Your task to perform on an android device: Open ESPN.com Image 0: 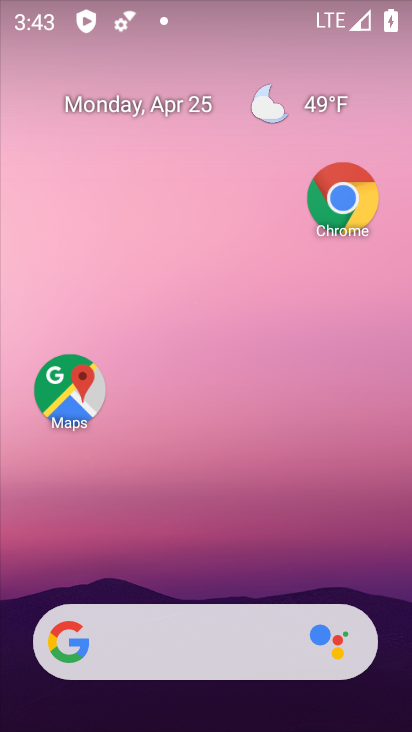
Step 0: press home button
Your task to perform on an android device: Open ESPN.com Image 1: 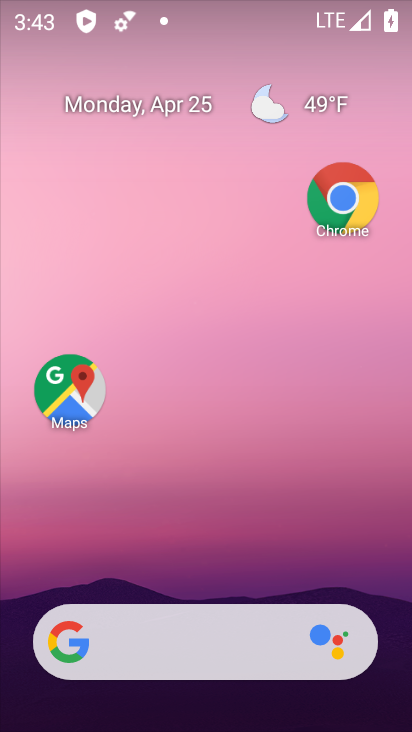
Step 1: drag from (147, 648) to (338, 152)
Your task to perform on an android device: Open ESPN.com Image 2: 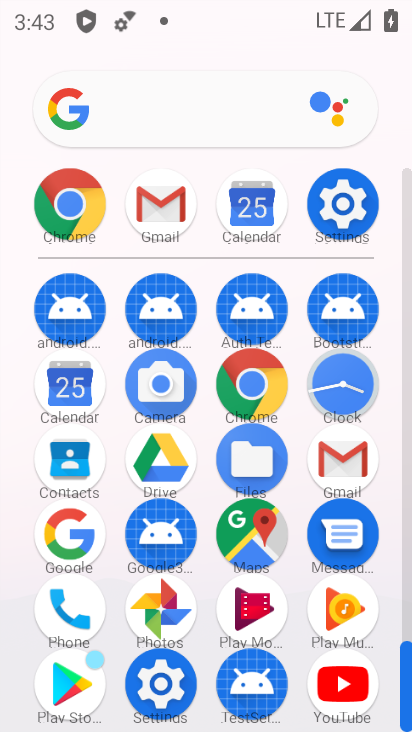
Step 2: click (63, 207)
Your task to perform on an android device: Open ESPN.com Image 3: 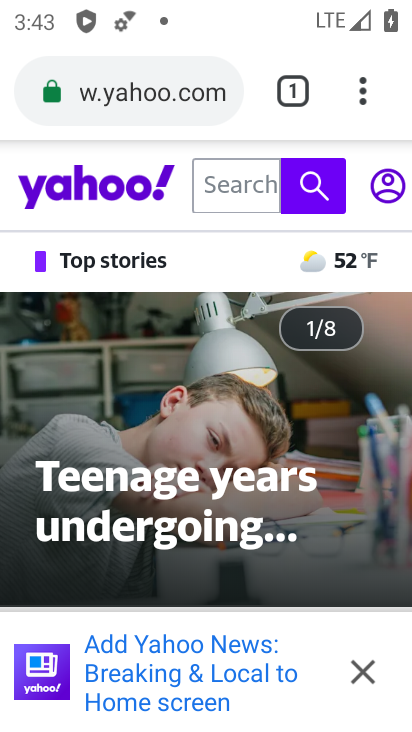
Step 3: drag from (359, 97) to (91, 280)
Your task to perform on an android device: Open ESPN.com Image 4: 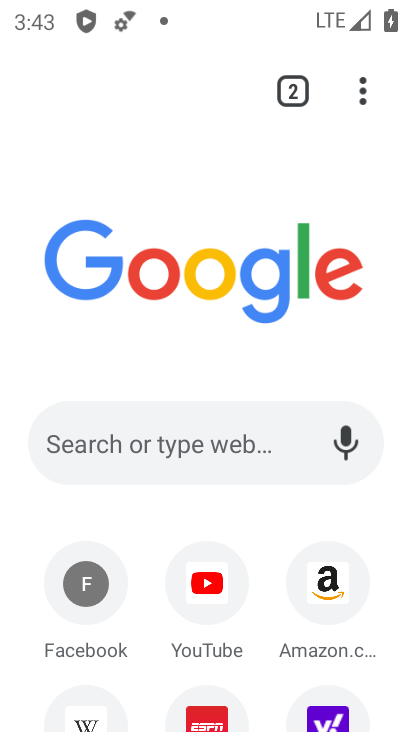
Step 4: drag from (136, 574) to (331, 105)
Your task to perform on an android device: Open ESPN.com Image 5: 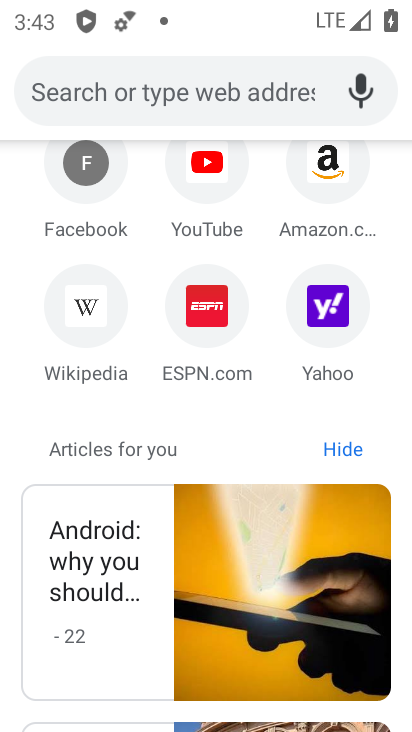
Step 5: click (209, 319)
Your task to perform on an android device: Open ESPN.com Image 6: 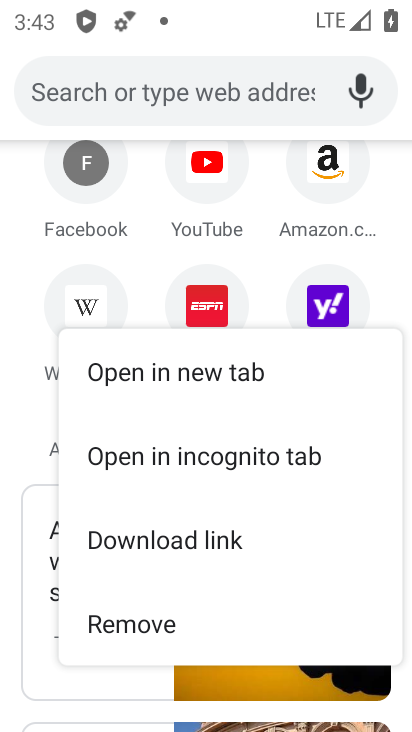
Step 6: click (210, 310)
Your task to perform on an android device: Open ESPN.com Image 7: 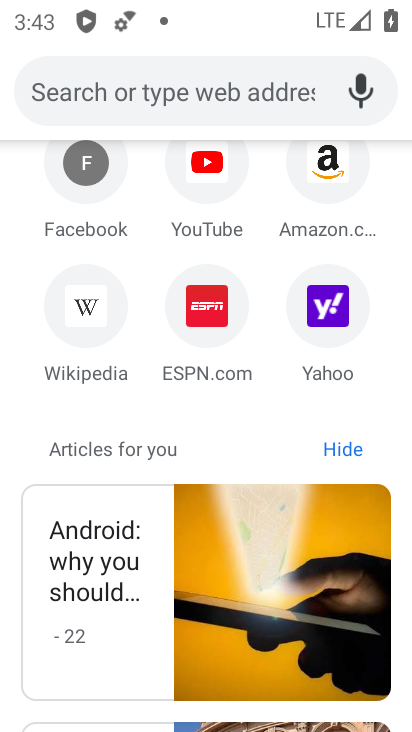
Step 7: click (205, 317)
Your task to perform on an android device: Open ESPN.com Image 8: 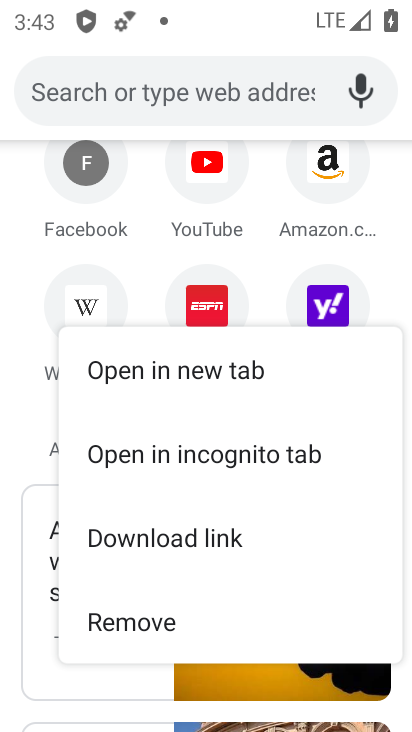
Step 8: click (208, 306)
Your task to perform on an android device: Open ESPN.com Image 9: 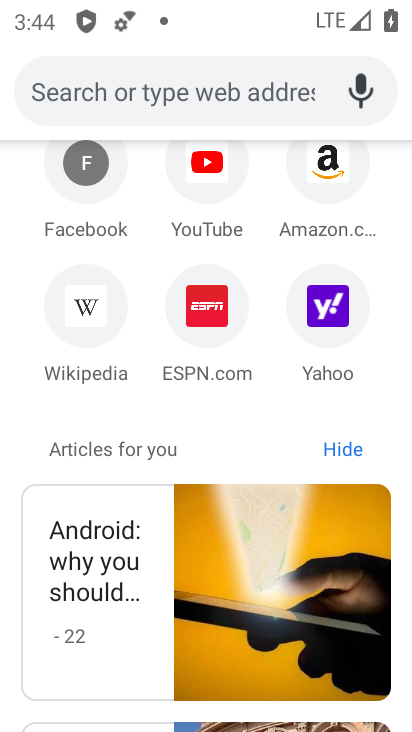
Step 9: click (207, 315)
Your task to perform on an android device: Open ESPN.com Image 10: 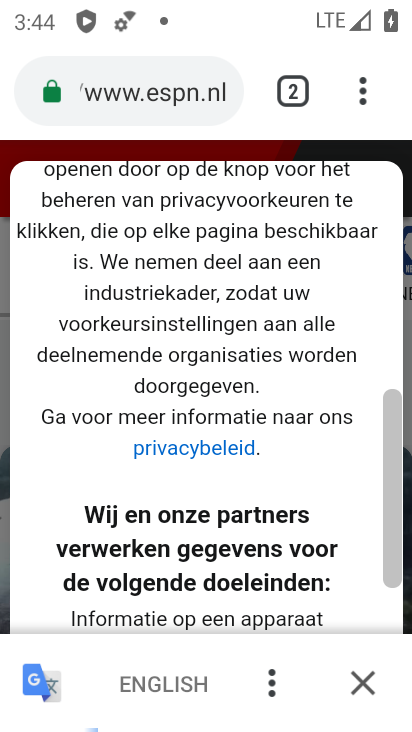
Step 10: task complete